Your task to perform on an android device: Open Android settings Image 0: 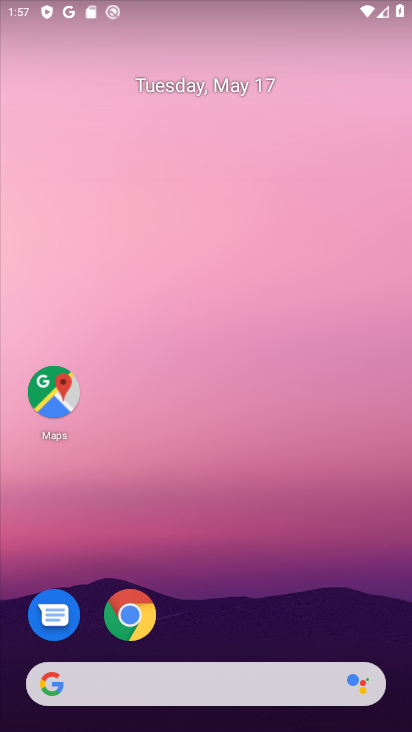
Step 0: press home button
Your task to perform on an android device: Open Android settings Image 1: 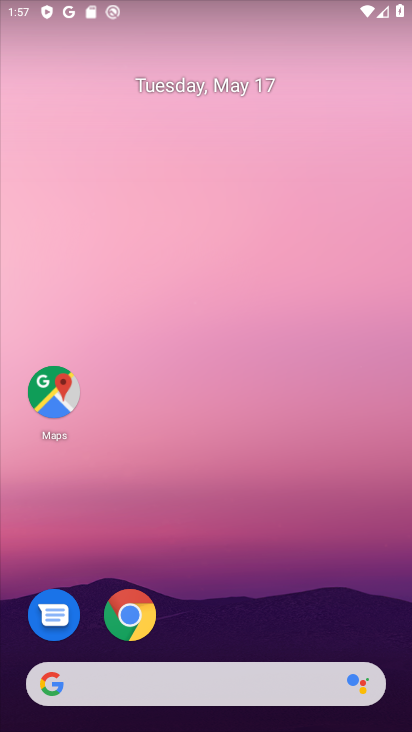
Step 1: press home button
Your task to perform on an android device: Open Android settings Image 2: 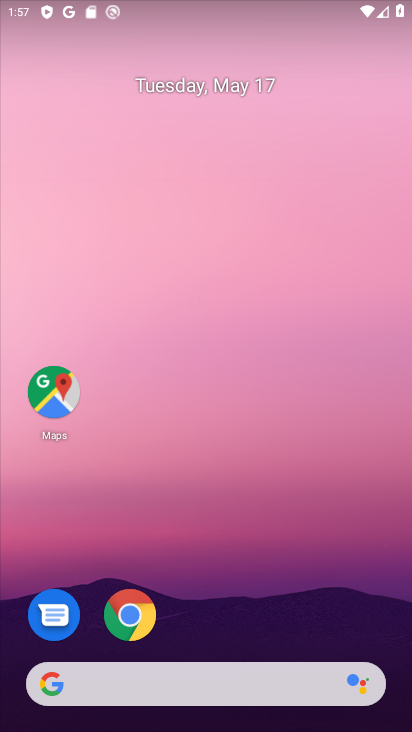
Step 2: drag from (399, 692) to (357, 173)
Your task to perform on an android device: Open Android settings Image 3: 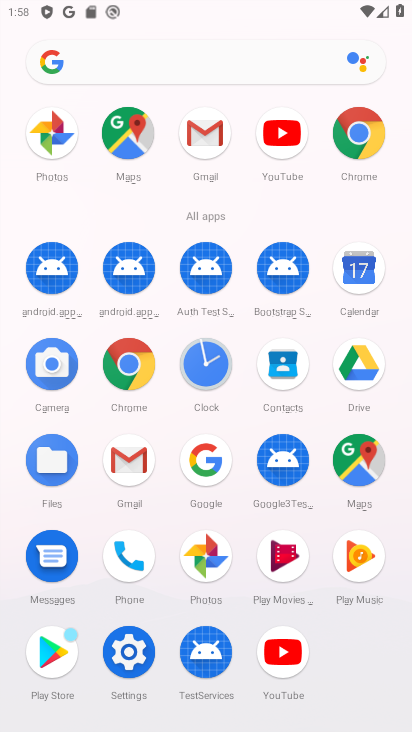
Step 3: click (123, 642)
Your task to perform on an android device: Open Android settings Image 4: 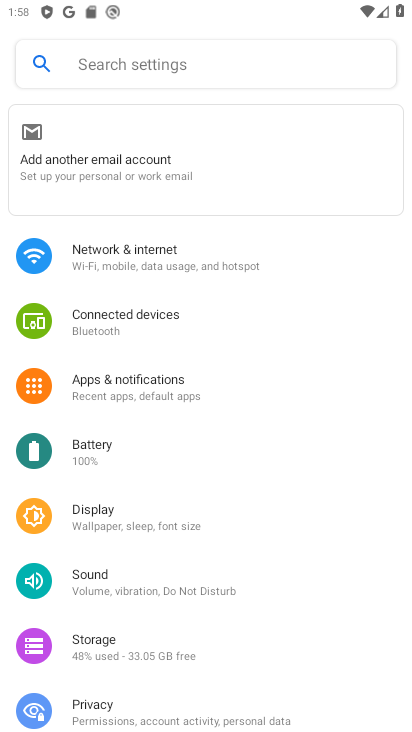
Step 4: drag from (102, 600) to (69, 301)
Your task to perform on an android device: Open Android settings Image 5: 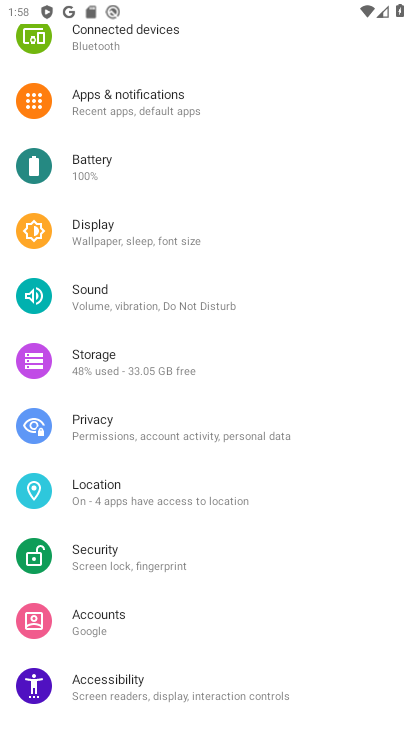
Step 5: drag from (141, 412) to (106, 178)
Your task to perform on an android device: Open Android settings Image 6: 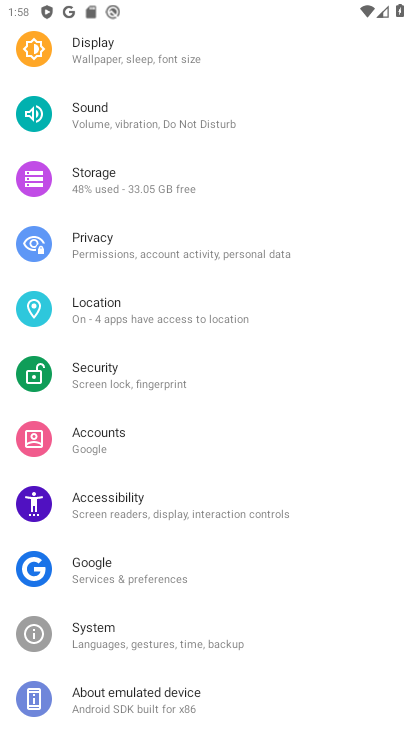
Step 6: click (112, 692)
Your task to perform on an android device: Open Android settings Image 7: 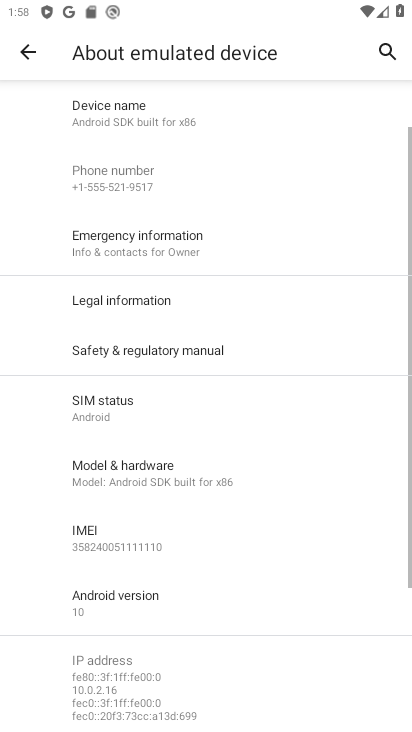
Step 7: click (146, 597)
Your task to perform on an android device: Open Android settings Image 8: 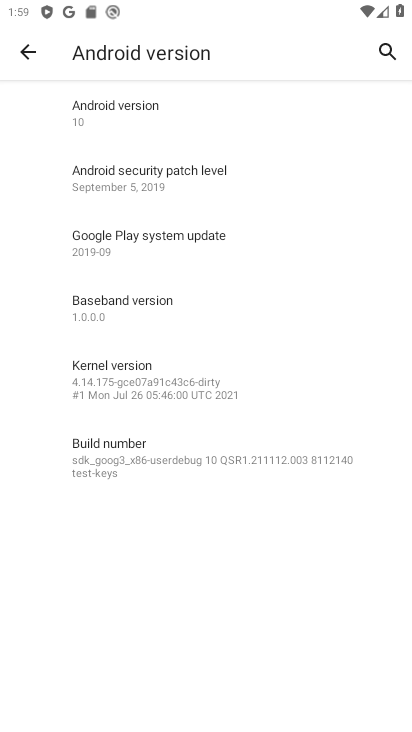
Step 8: task complete